Your task to perform on an android device: Toggle the flashlight Image 0: 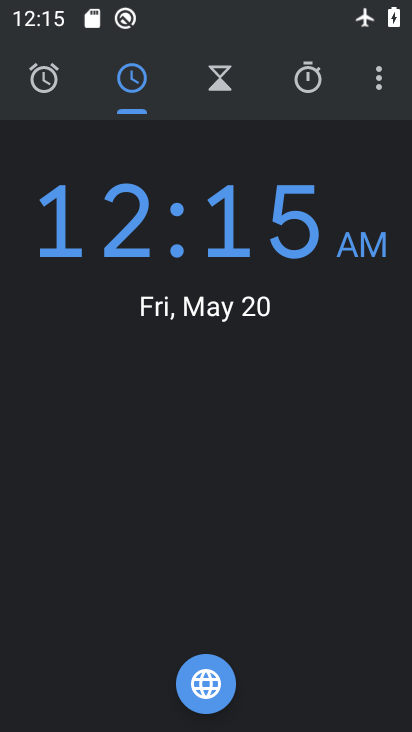
Step 0: drag from (373, 566) to (299, 287)
Your task to perform on an android device: Toggle the flashlight Image 1: 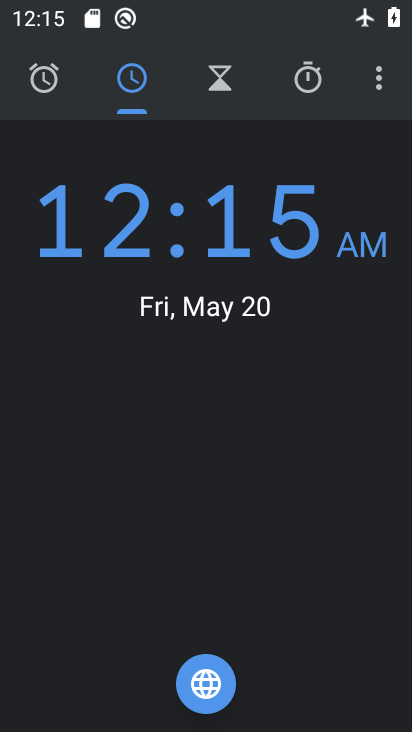
Step 1: press home button
Your task to perform on an android device: Toggle the flashlight Image 2: 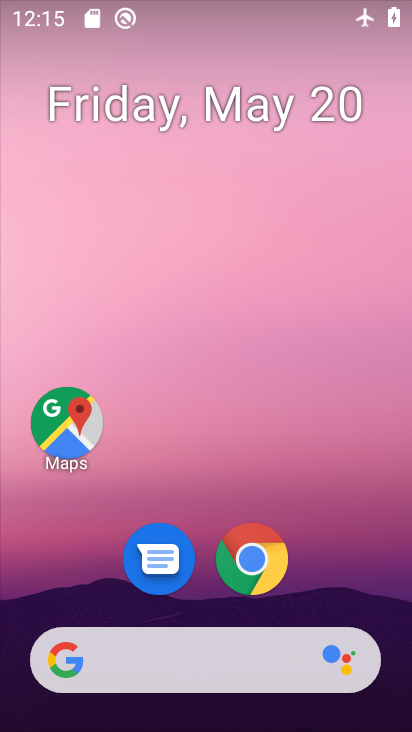
Step 2: drag from (203, 7) to (201, 422)
Your task to perform on an android device: Toggle the flashlight Image 3: 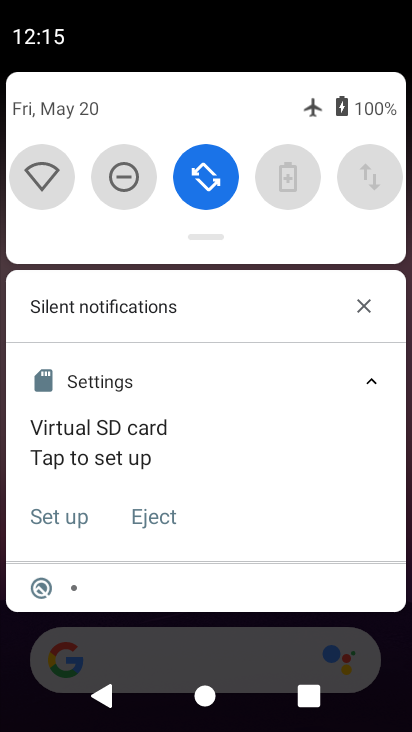
Step 3: drag from (252, 215) to (271, 512)
Your task to perform on an android device: Toggle the flashlight Image 4: 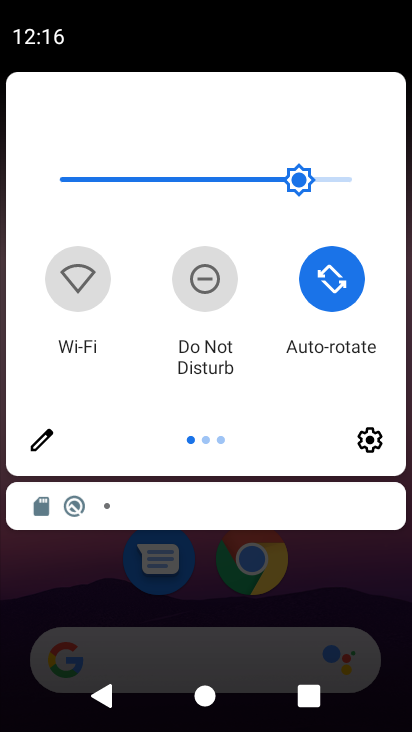
Step 4: click (36, 435)
Your task to perform on an android device: Toggle the flashlight Image 5: 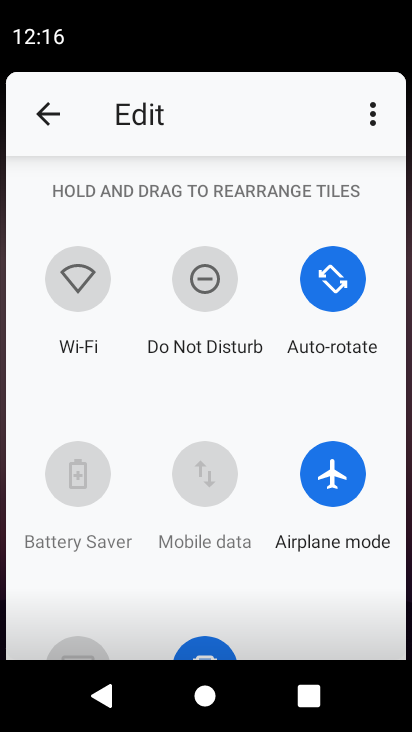
Step 5: task complete